Your task to perform on an android device: Open the web browser Image 0: 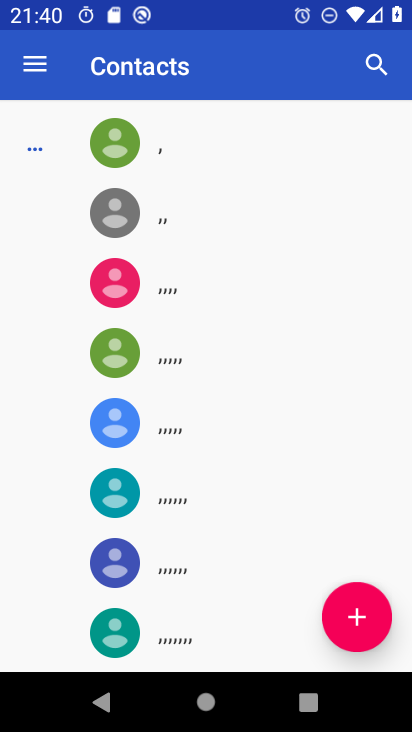
Step 0: press home button
Your task to perform on an android device: Open the web browser Image 1: 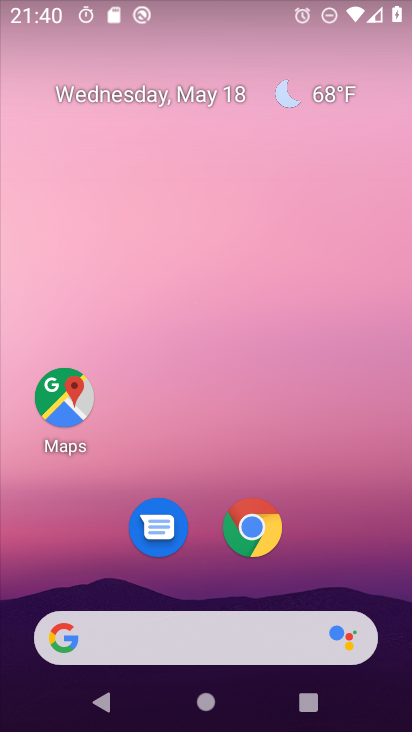
Step 1: drag from (385, 654) to (379, 297)
Your task to perform on an android device: Open the web browser Image 2: 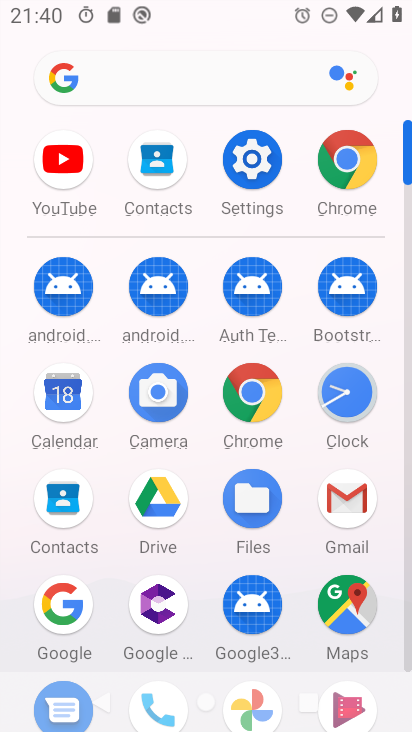
Step 2: click (243, 396)
Your task to perform on an android device: Open the web browser Image 3: 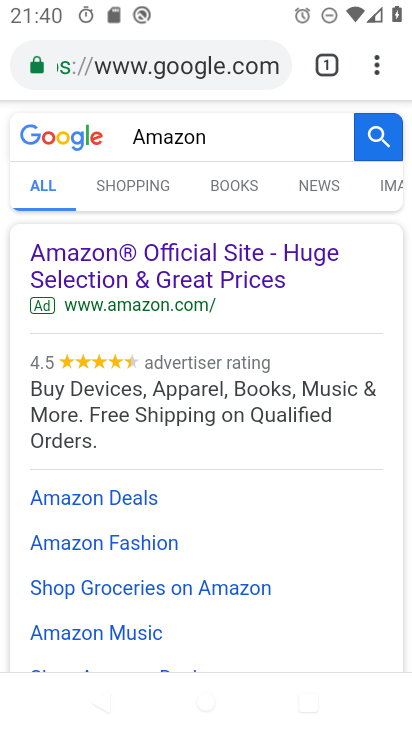
Step 3: task complete